Your task to perform on an android device: change the clock display to show seconds Image 0: 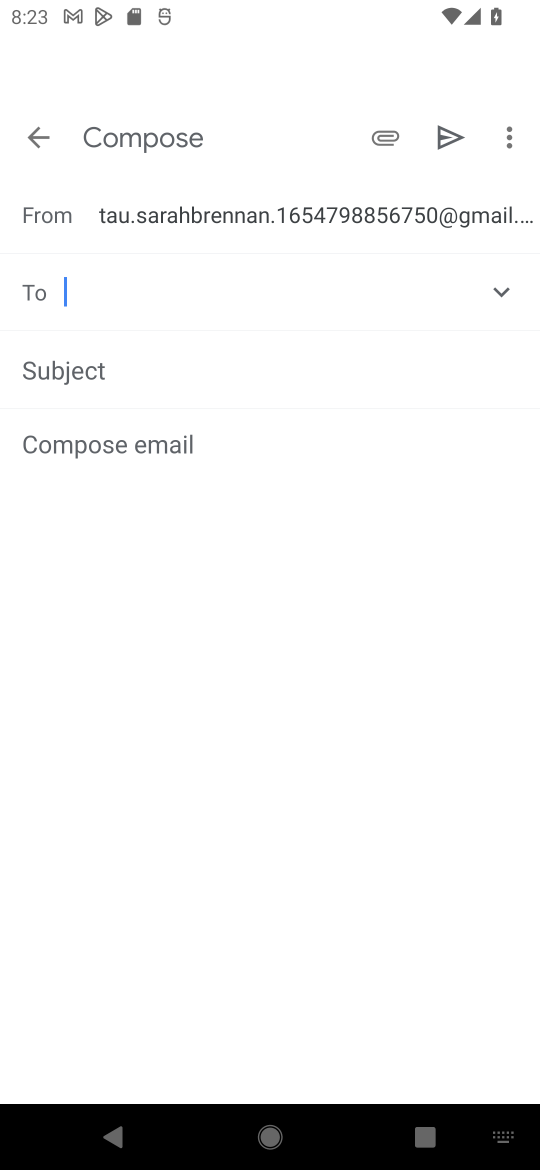
Step 0: press home button
Your task to perform on an android device: change the clock display to show seconds Image 1: 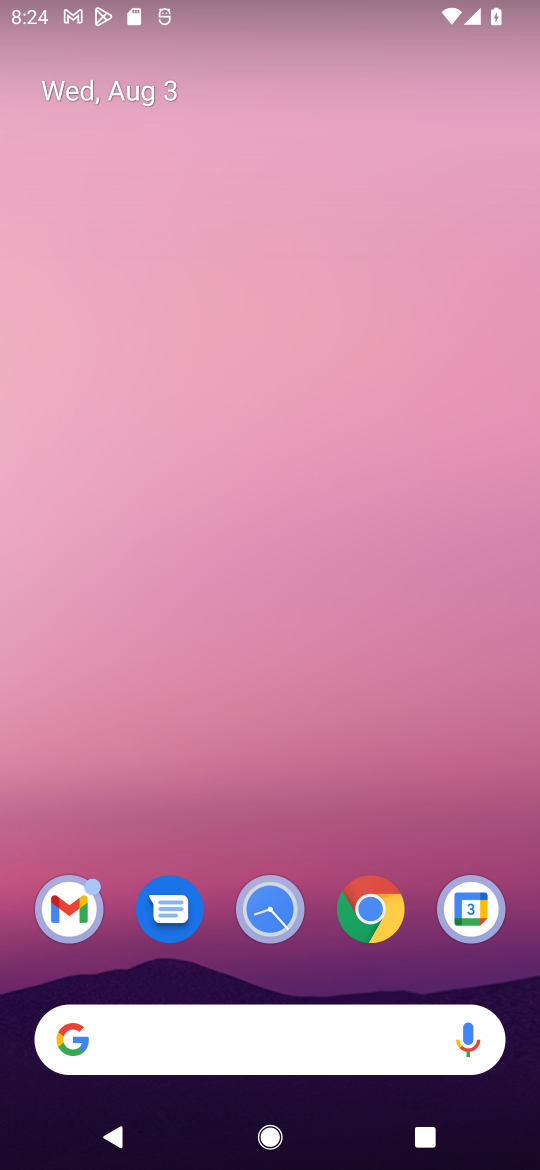
Step 1: drag from (424, 809) to (436, 287)
Your task to perform on an android device: change the clock display to show seconds Image 2: 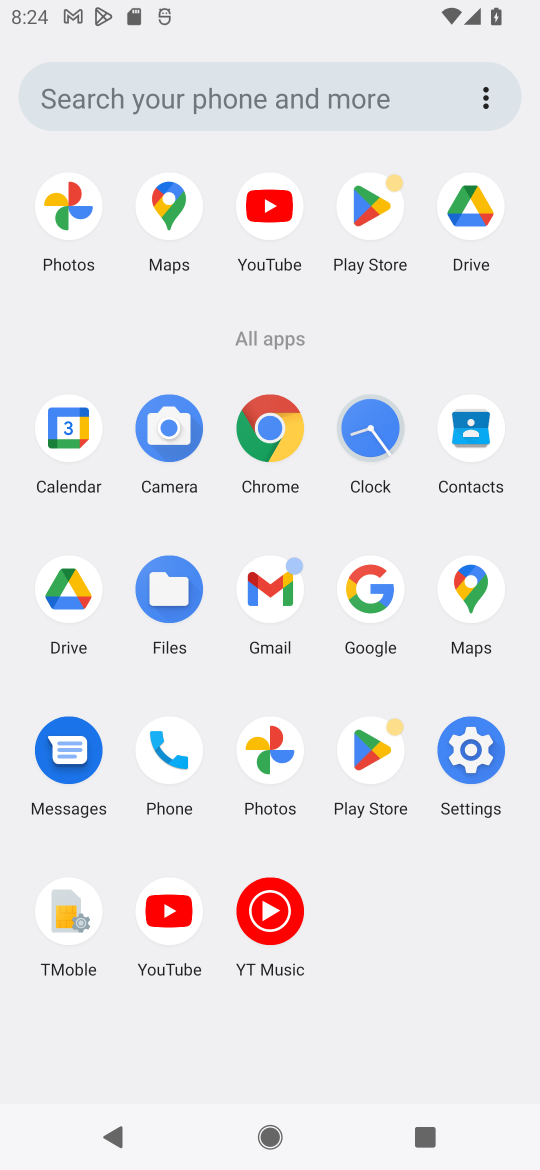
Step 2: click (366, 441)
Your task to perform on an android device: change the clock display to show seconds Image 3: 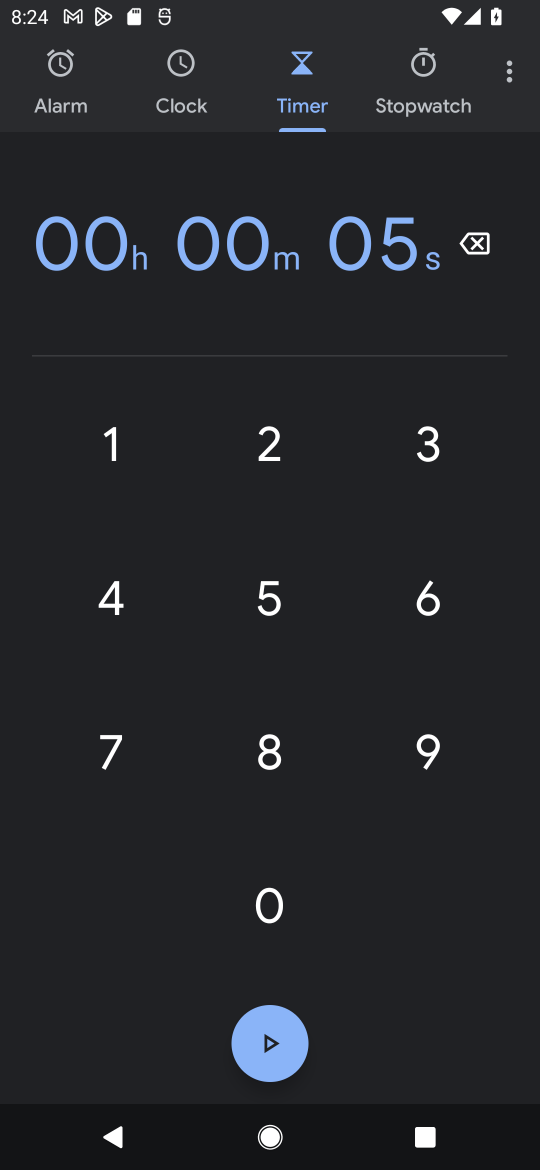
Step 3: click (510, 76)
Your task to perform on an android device: change the clock display to show seconds Image 4: 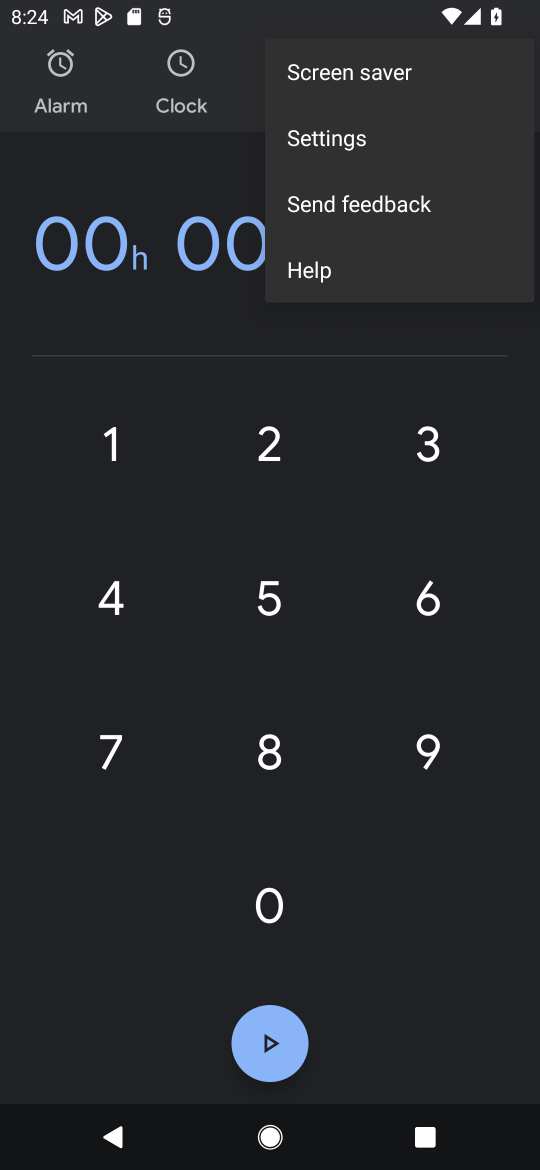
Step 4: click (357, 139)
Your task to perform on an android device: change the clock display to show seconds Image 5: 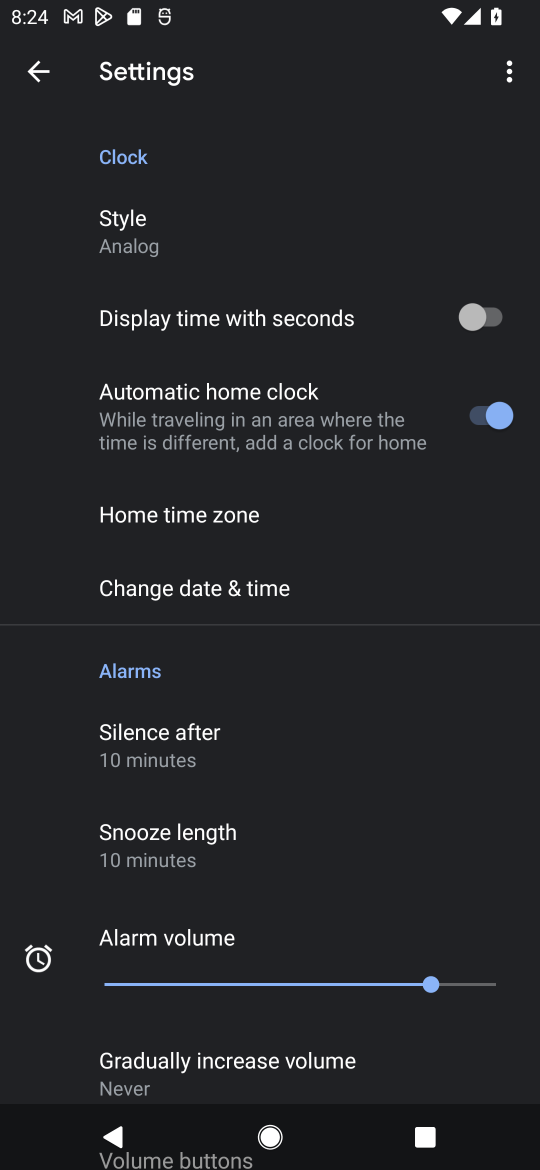
Step 5: drag from (376, 745) to (395, 615)
Your task to perform on an android device: change the clock display to show seconds Image 6: 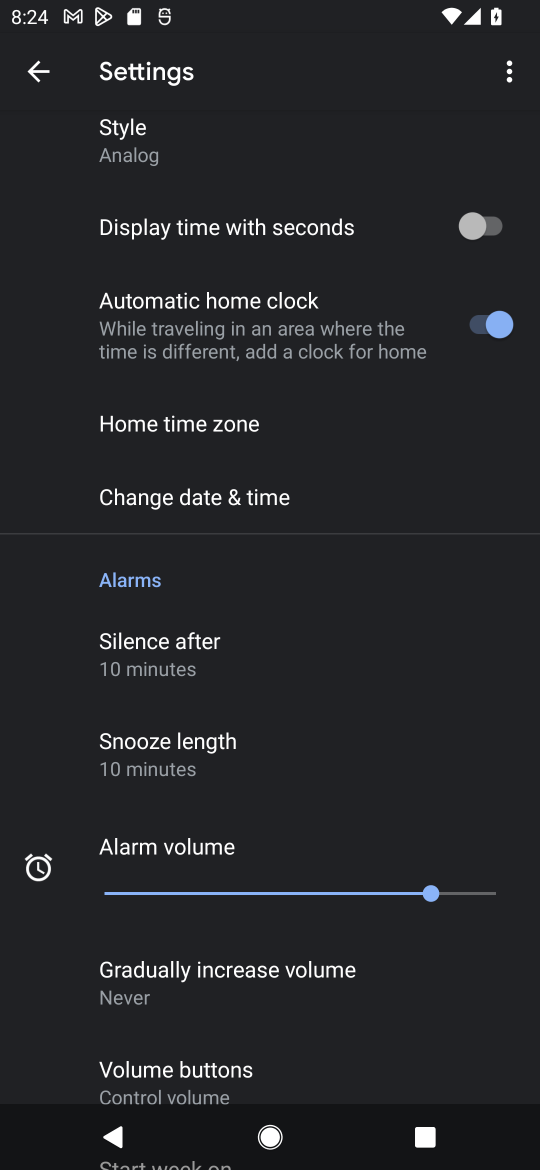
Step 6: drag from (397, 782) to (408, 574)
Your task to perform on an android device: change the clock display to show seconds Image 7: 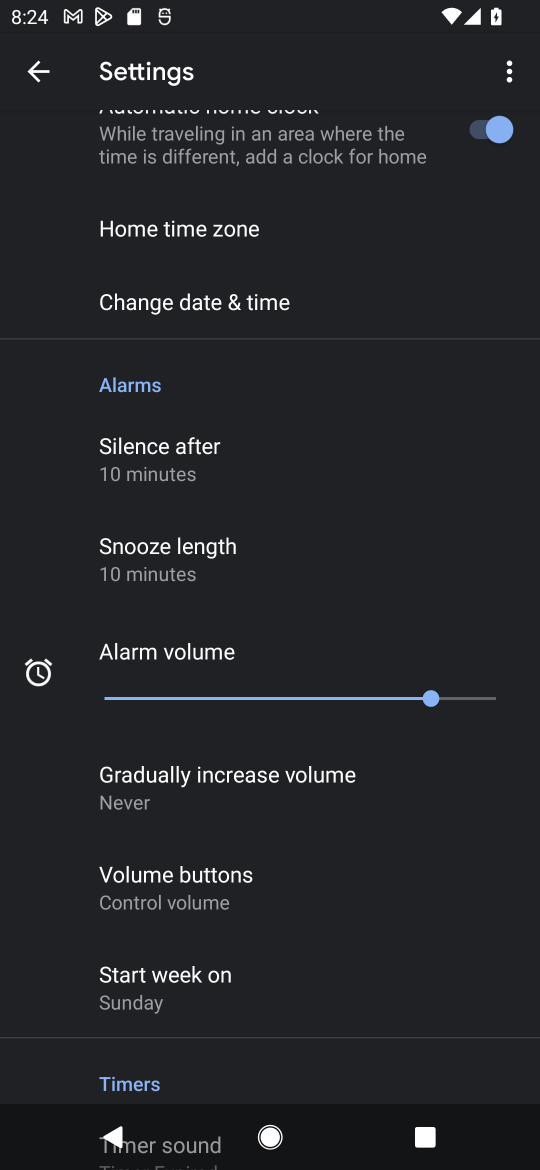
Step 7: drag from (435, 888) to (434, 694)
Your task to perform on an android device: change the clock display to show seconds Image 8: 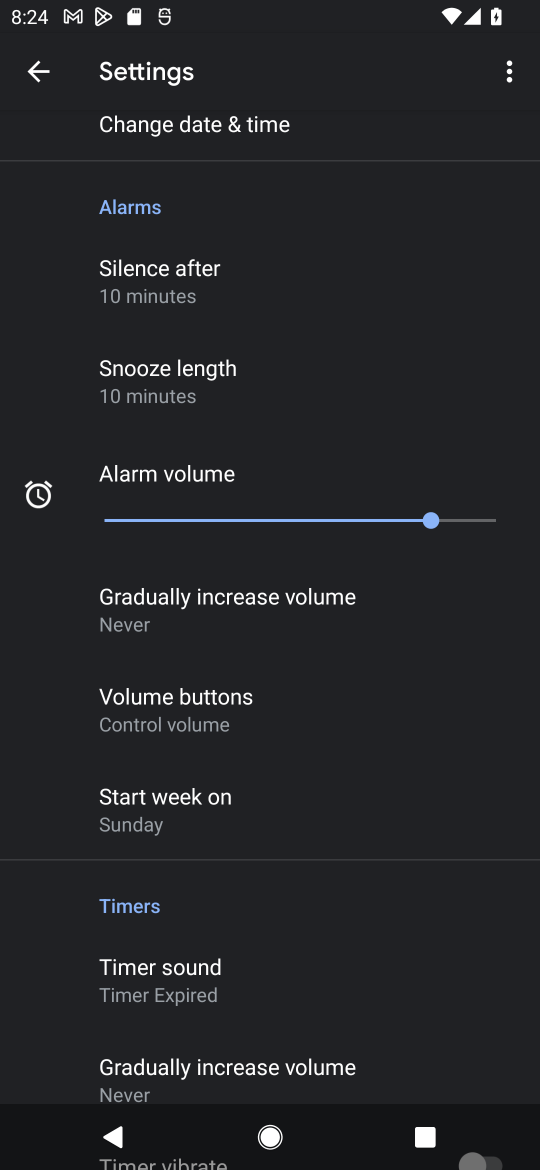
Step 8: drag from (435, 927) to (422, 738)
Your task to perform on an android device: change the clock display to show seconds Image 9: 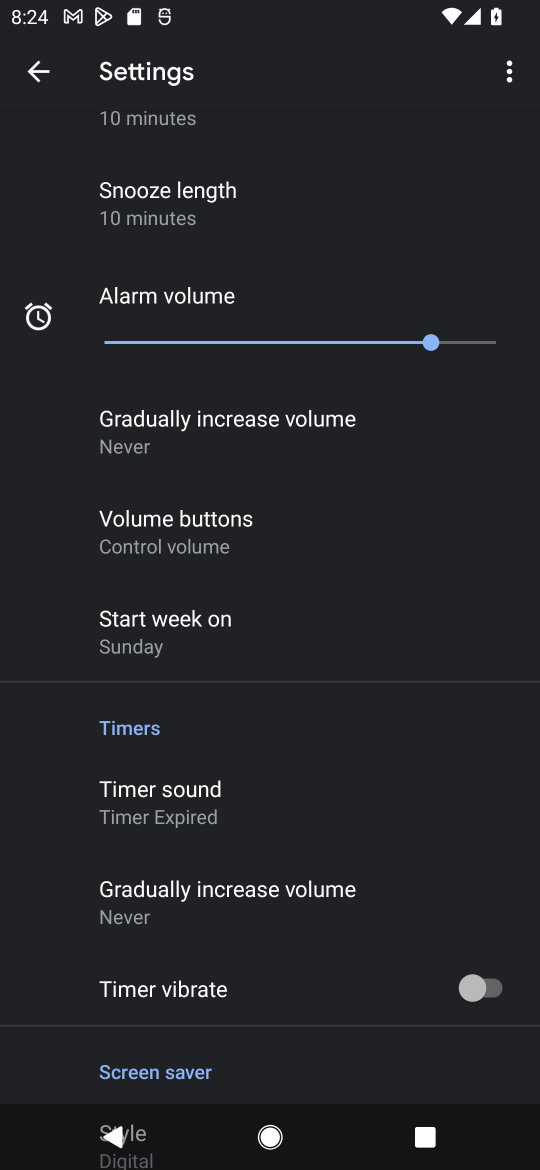
Step 9: drag from (373, 978) to (375, 709)
Your task to perform on an android device: change the clock display to show seconds Image 10: 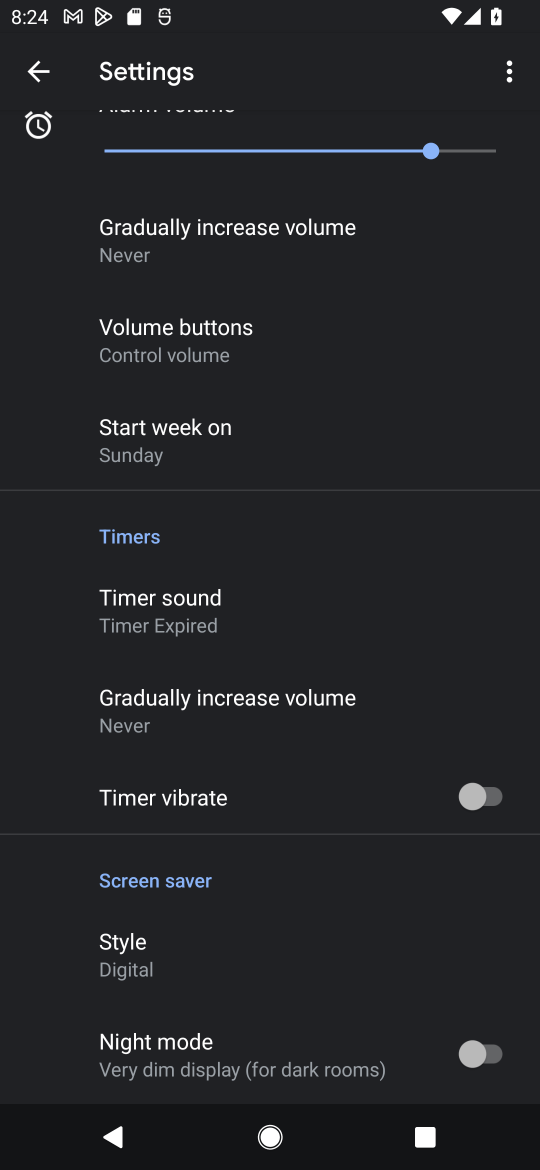
Step 10: drag from (425, 490) to (421, 686)
Your task to perform on an android device: change the clock display to show seconds Image 11: 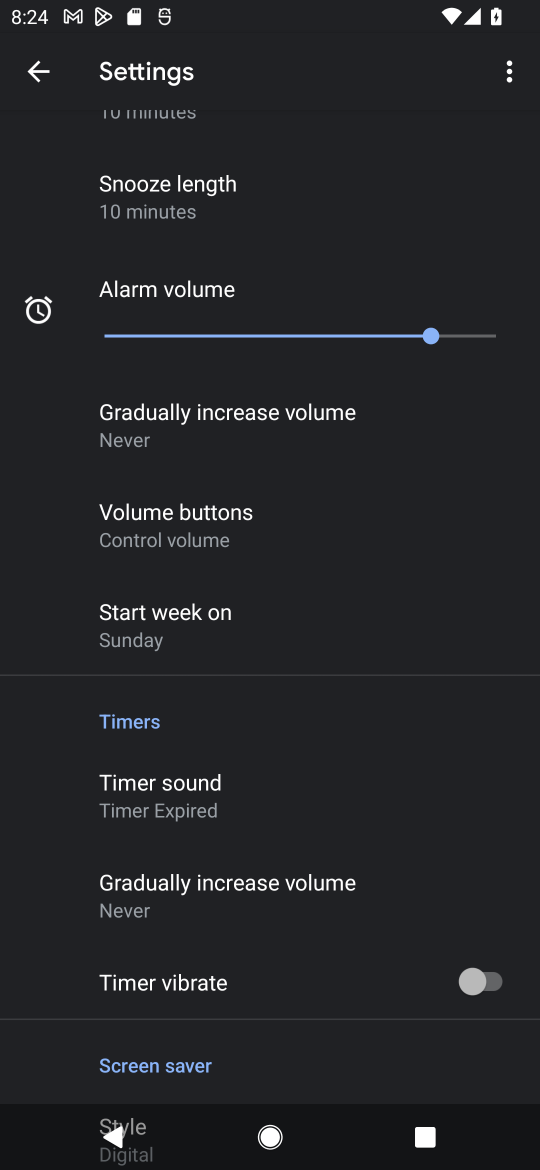
Step 11: drag from (428, 494) to (437, 653)
Your task to perform on an android device: change the clock display to show seconds Image 12: 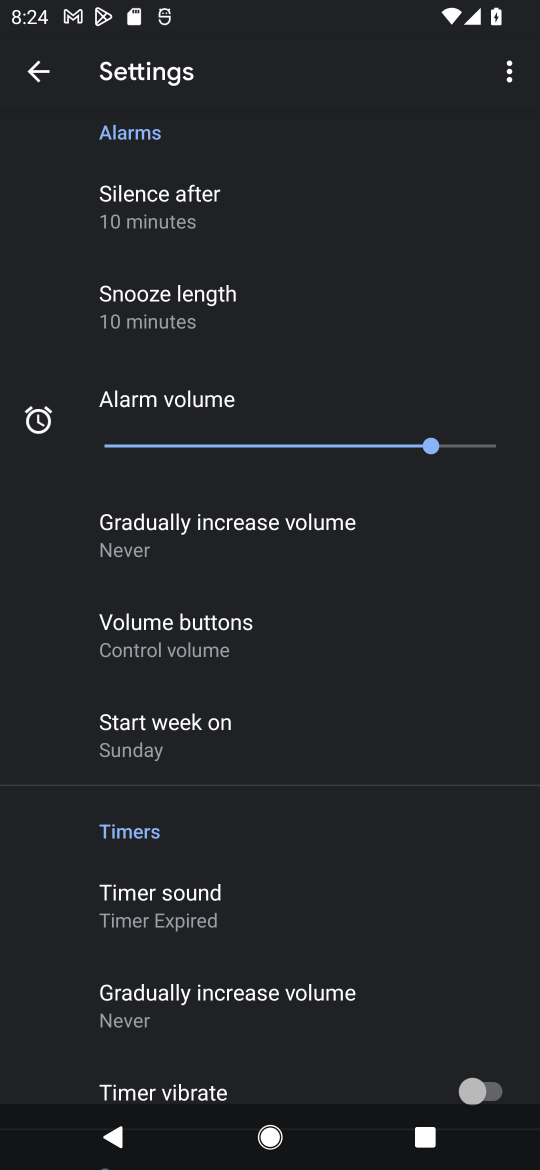
Step 12: drag from (456, 348) to (462, 572)
Your task to perform on an android device: change the clock display to show seconds Image 13: 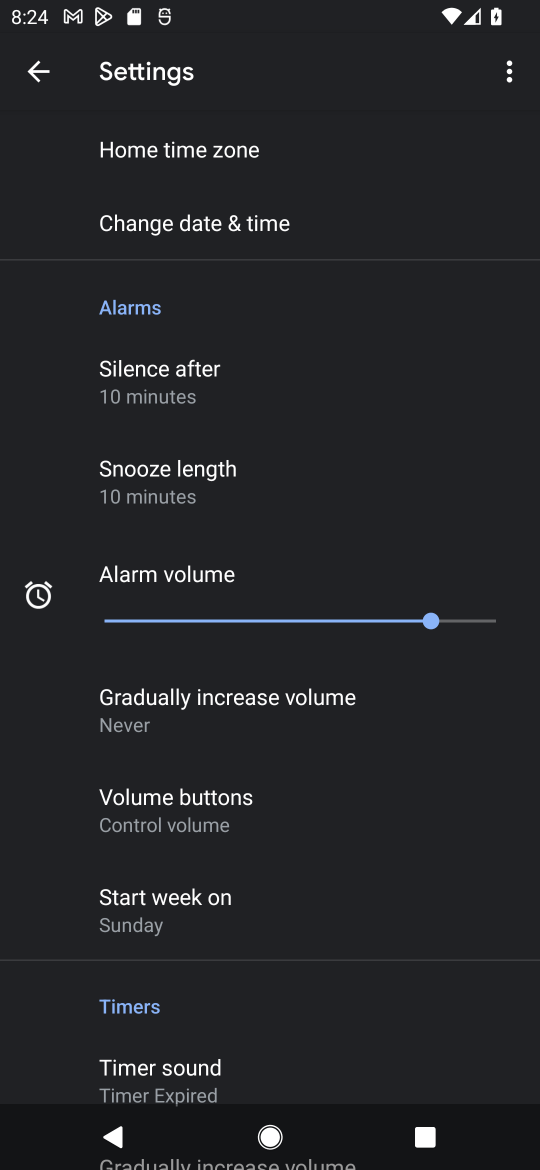
Step 13: drag from (456, 314) to (456, 559)
Your task to perform on an android device: change the clock display to show seconds Image 14: 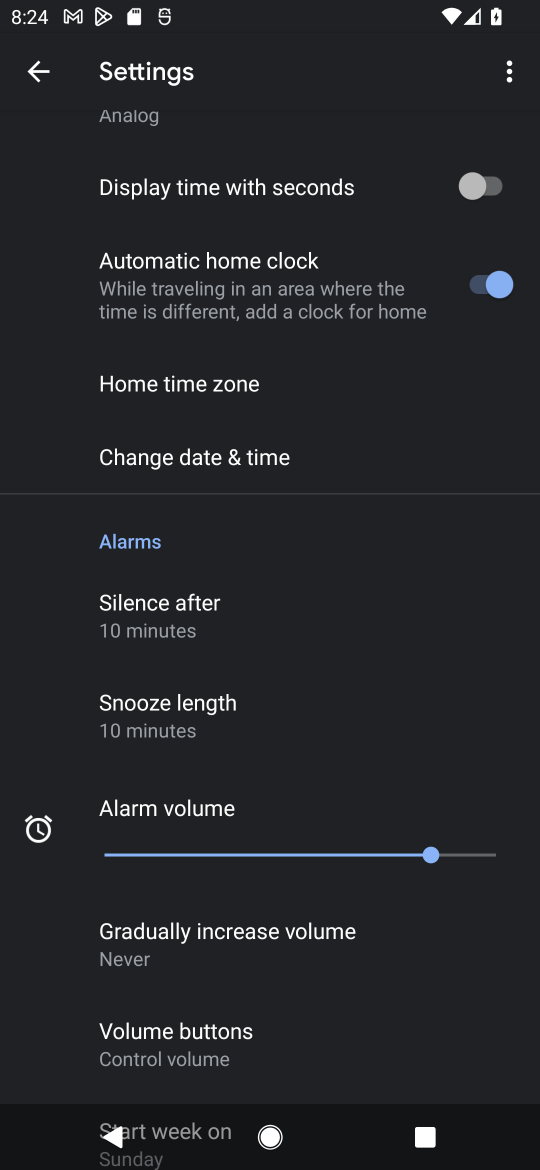
Step 14: drag from (432, 255) to (417, 545)
Your task to perform on an android device: change the clock display to show seconds Image 15: 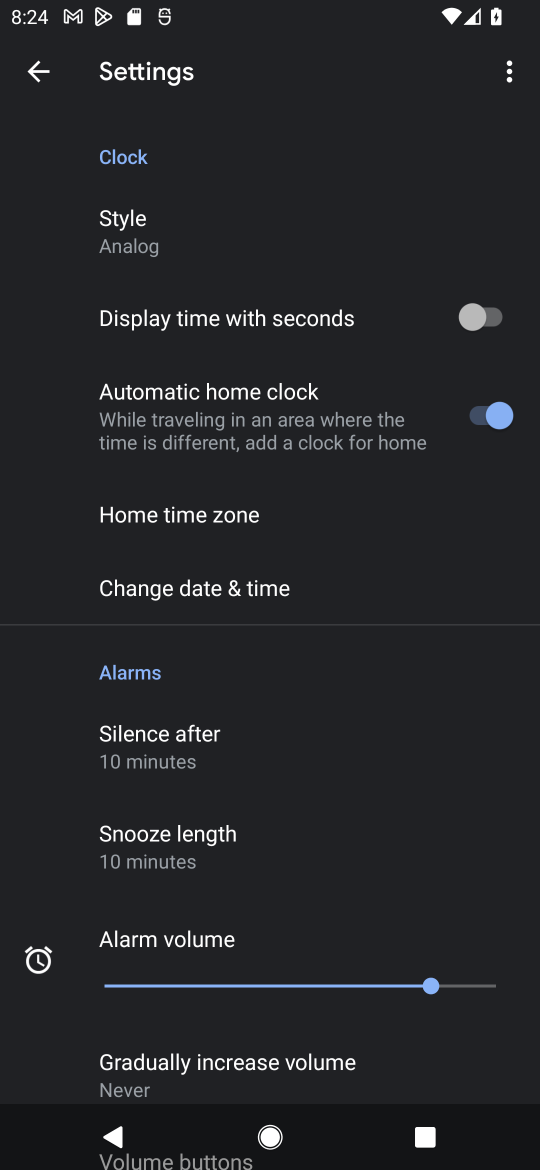
Step 15: click (470, 329)
Your task to perform on an android device: change the clock display to show seconds Image 16: 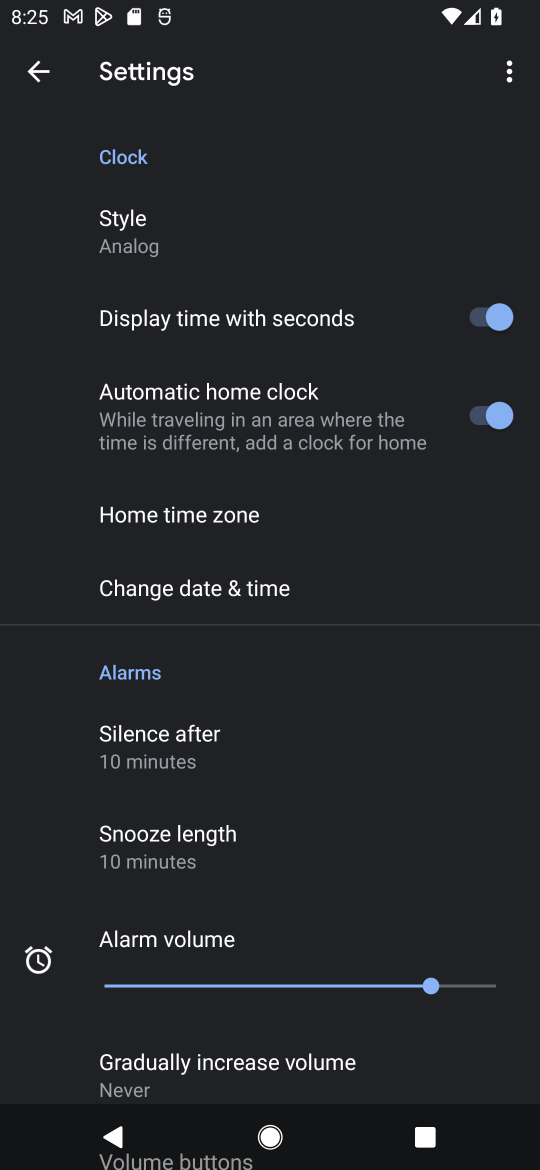
Step 16: task complete